Your task to perform on an android device: turn off wifi Image 0: 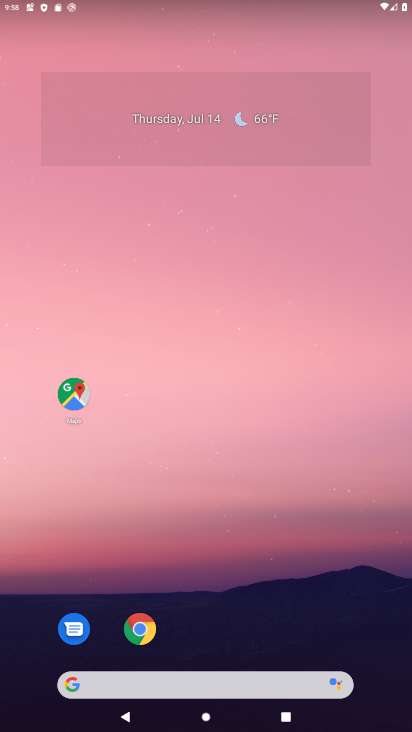
Step 0: drag from (304, 596) to (304, 154)
Your task to perform on an android device: turn off wifi Image 1: 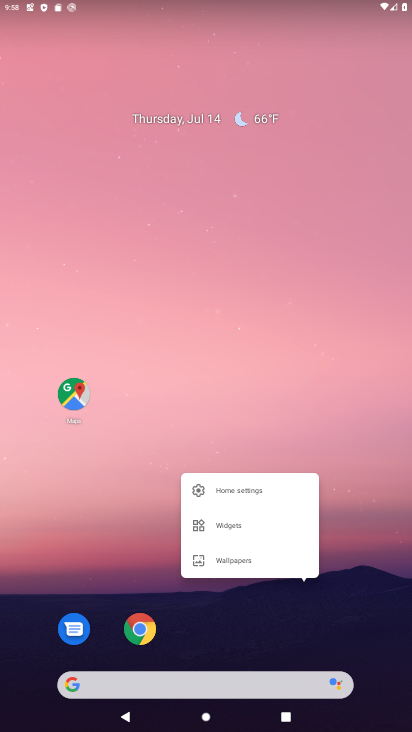
Step 1: drag from (367, 578) to (364, 19)
Your task to perform on an android device: turn off wifi Image 2: 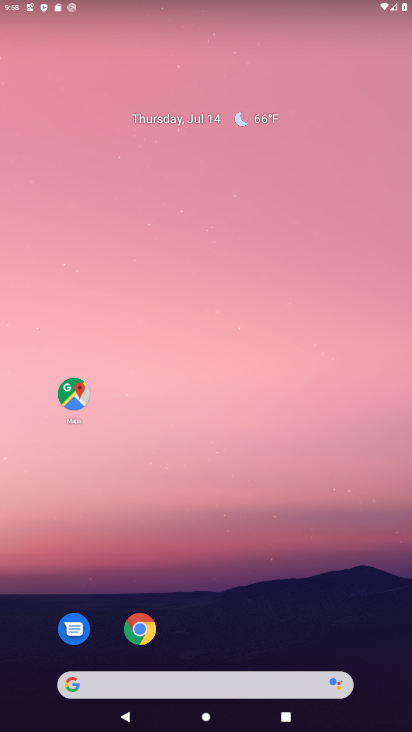
Step 2: drag from (215, 558) to (397, 12)
Your task to perform on an android device: turn off wifi Image 3: 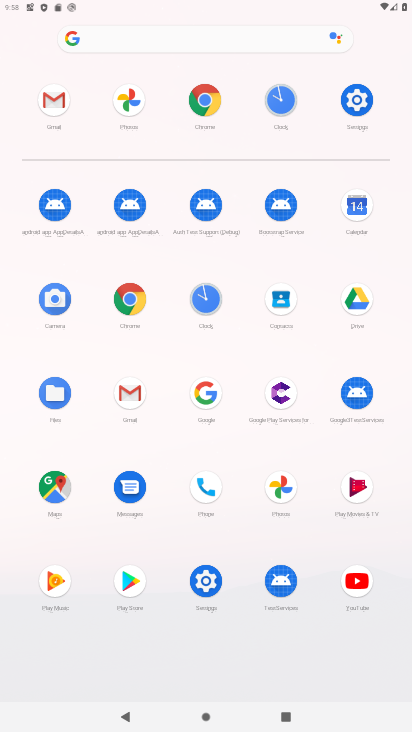
Step 3: click (357, 92)
Your task to perform on an android device: turn off wifi Image 4: 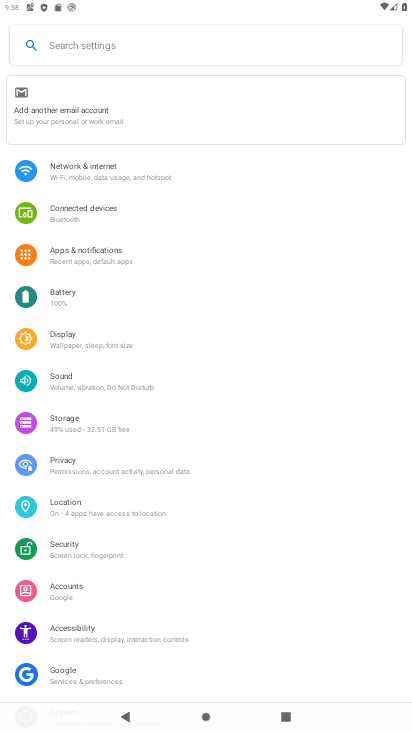
Step 4: click (92, 161)
Your task to perform on an android device: turn off wifi Image 5: 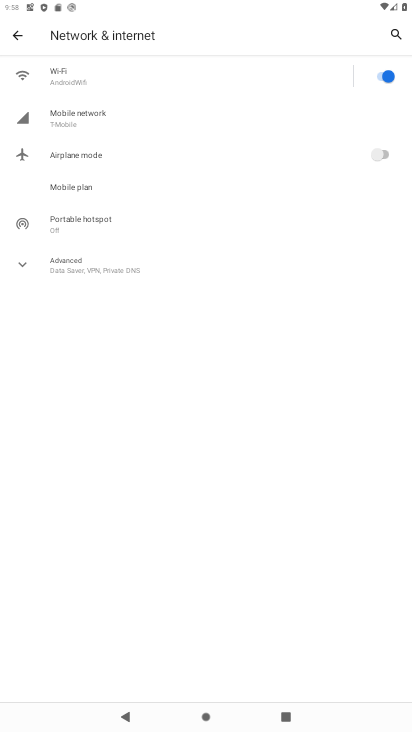
Step 5: click (379, 74)
Your task to perform on an android device: turn off wifi Image 6: 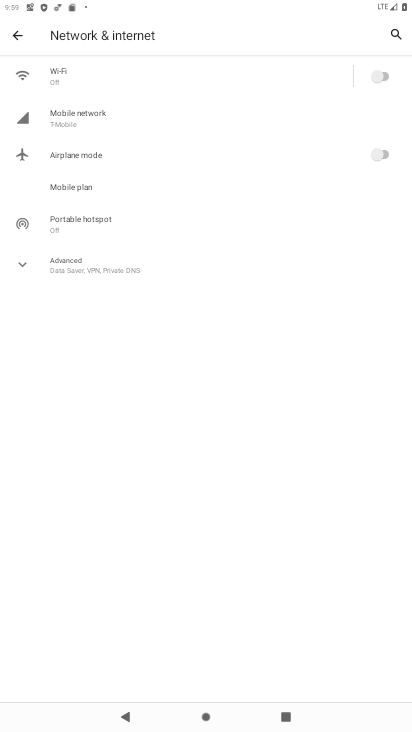
Step 6: task complete